Your task to perform on an android device: Open notification settings Image 0: 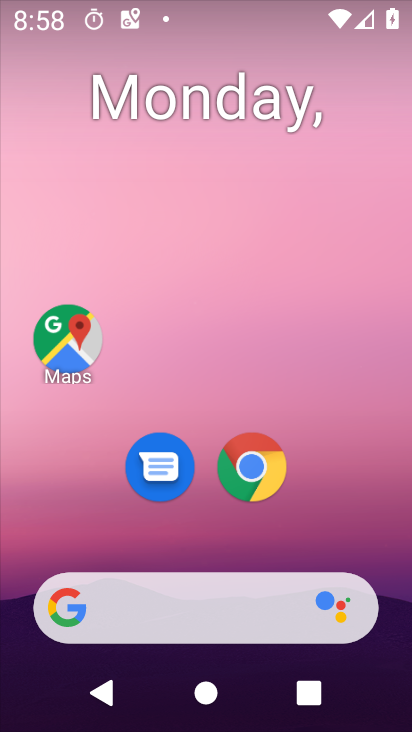
Step 0: drag from (203, 514) to (260, 35)
Your task to perform on an android device: Open notification settings Image 1: 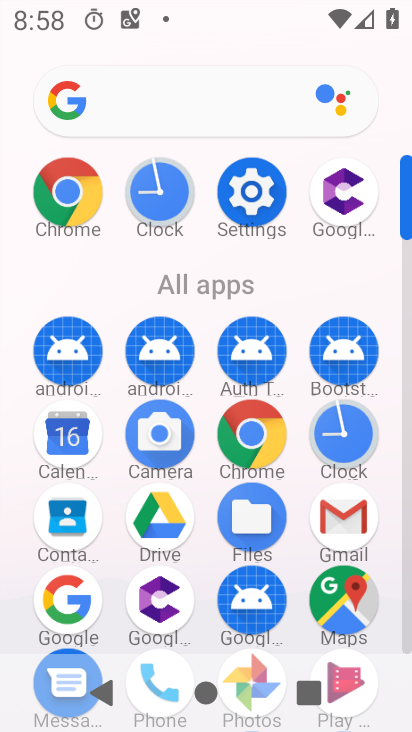
Step 1: click (255, 210)
Your task to perform on an android device: Open notification settings Image 2: 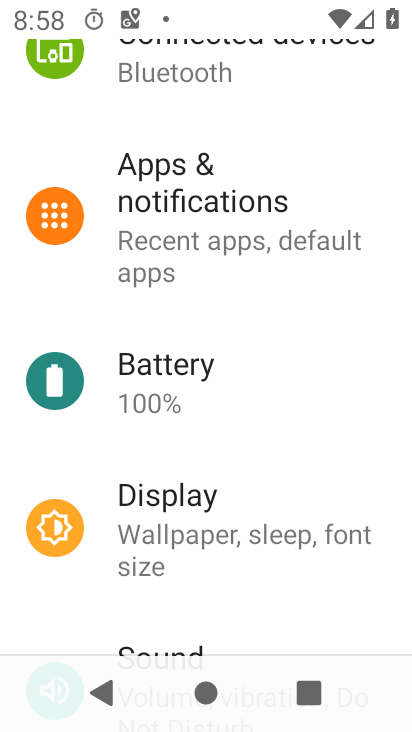
Step 2: click (255, 210)
Your task to perform on an android device: Open notification settings Image 3: 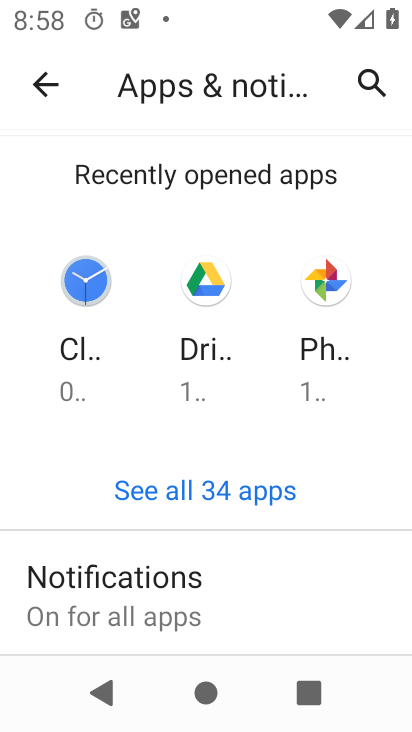
Step 3: click (192, 641)
Your task to perform on an android device: Open notification settings Image 4: 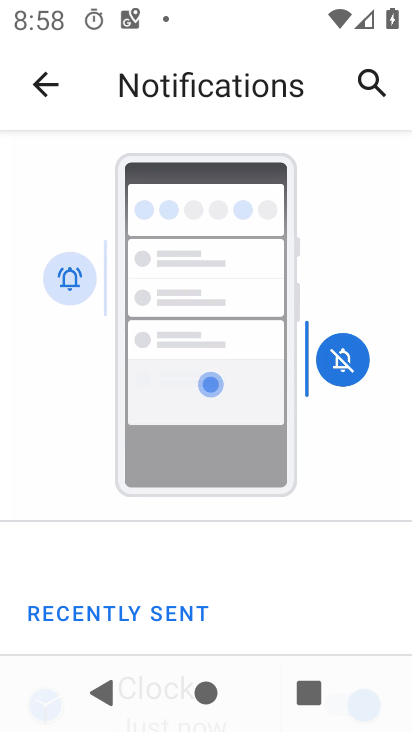
Step 4: task complete